Your task to perform on an android device: What's the weather today? Image 0: 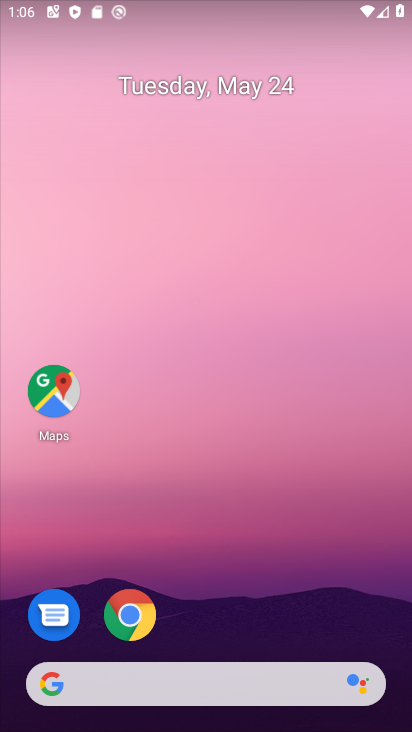
Step 0: click (157, 688)
Your task to perform on an android device: What's the weather today? Image 1: 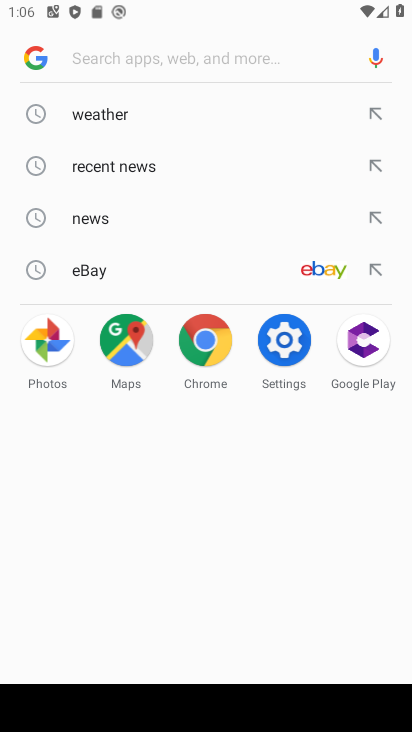
Step 1: click (103, 113)
Your task to perform on an android device: What's the weather today? Image 2: 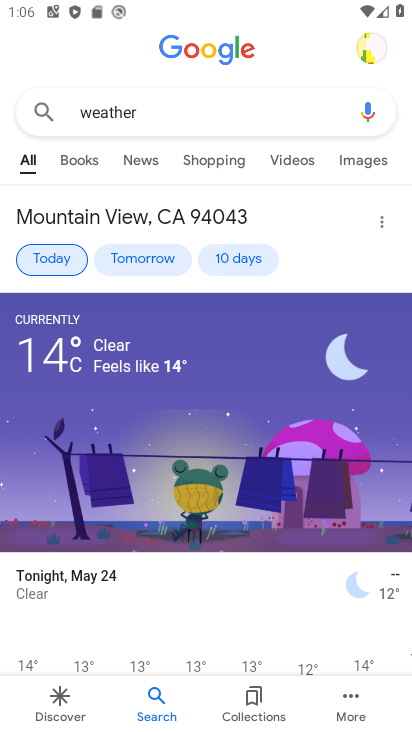
Step 2: task complete